Your task to perform on an android device: What's the weather going to be this weekend? Image 0: 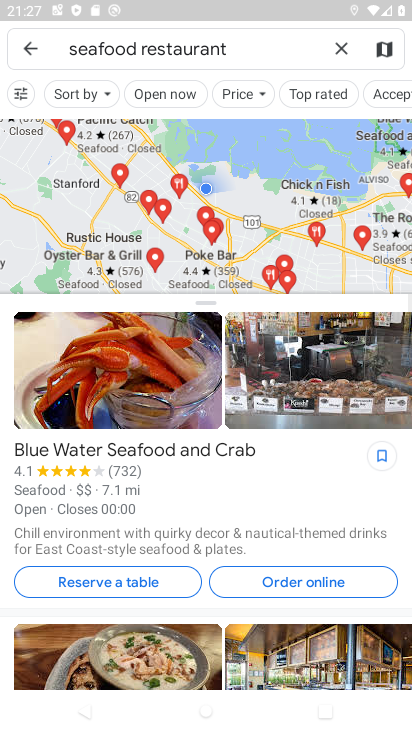
Step 0: press home button
Your task to perform on an android device: What's the weather going to be this weekend? Image 1: 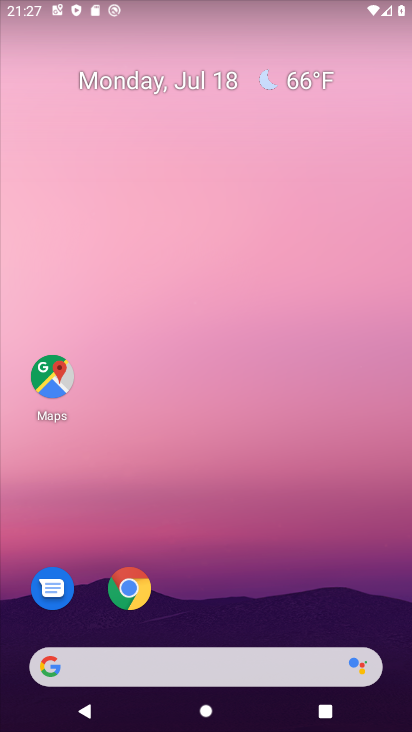
Step 1: click (173, 674)
Your task to perform on an android device: What's the weather going to be this weekend? Image 2: 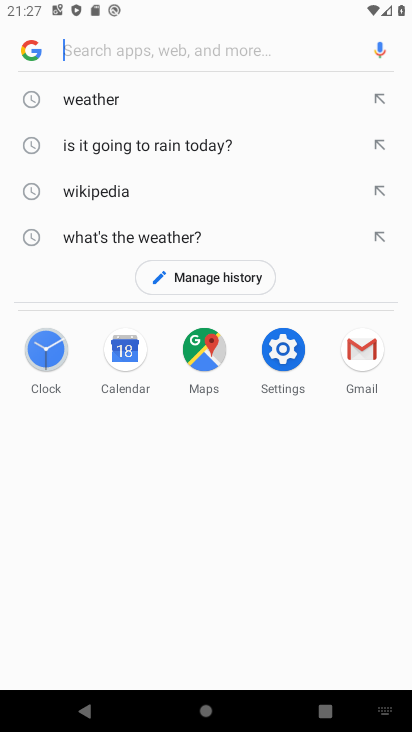
Step 2: click (104, 92)
Your task to perform on an android device: What's the weather going to be this weekend? Image 3: 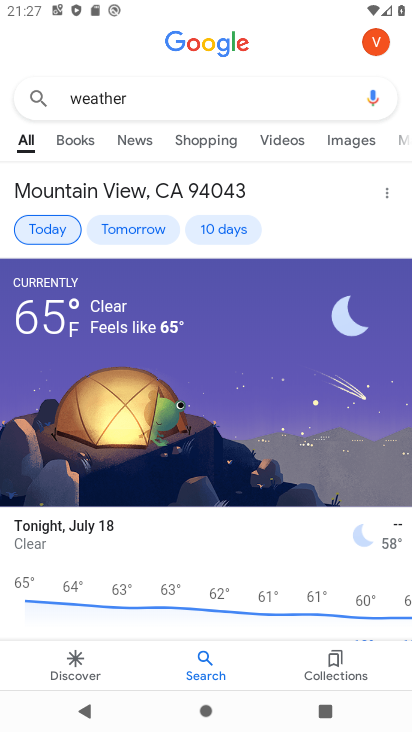
Step 3: click (223, 224)
Your task to perform on an android device: What's the weather going to be this weekend? Image 4: 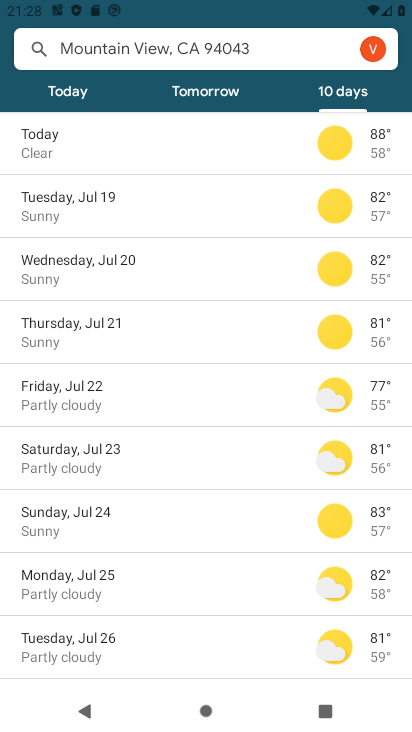
Step 4: click (92, 452)
Your task to perform on an android device: What's the weather going to be this weekend? Image 5: 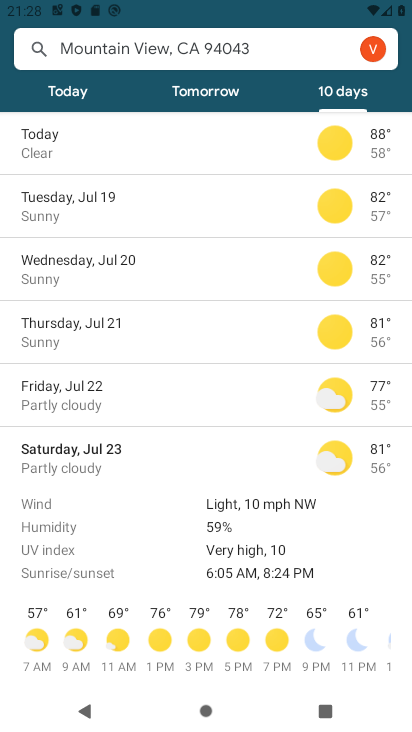
Step 5: task complete